Your task to perform on an android device: add a contact in the contacts app Image 0: 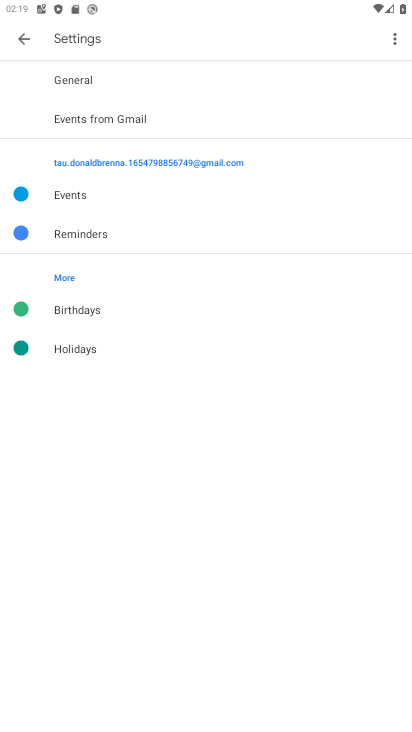
Step 0: press home button
Your task to perform on an android device: add a contact in the contacts app Image 1: 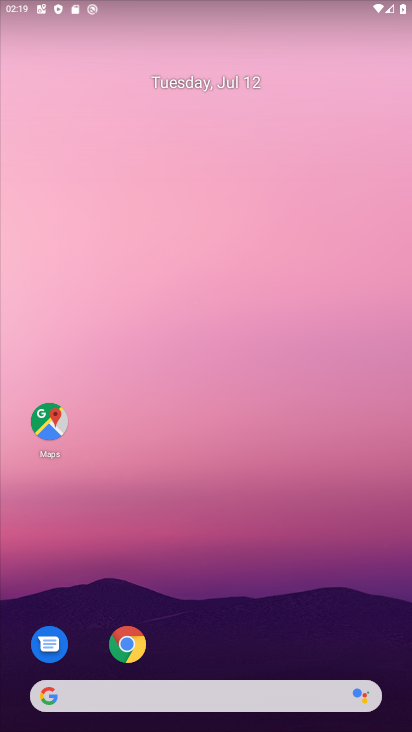
Step 1: drag from (228, 668) to (217, 203)
Your task to perform on an android device: add a contact in the contacts app Image 2: 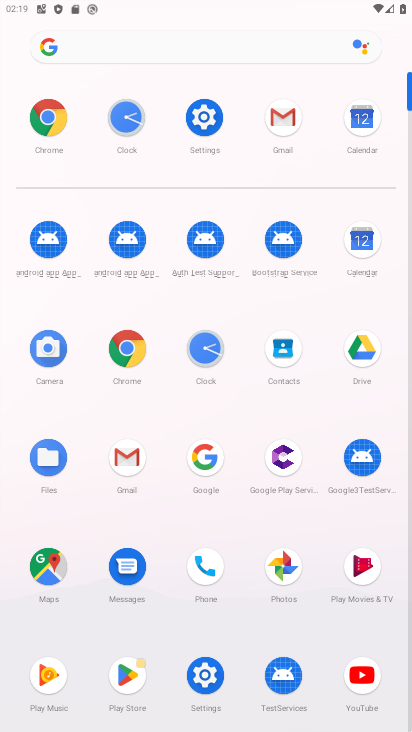
Step 2: click (212, 572)
Your task to perform on an android device: add a contact in the contacts app Image 3: 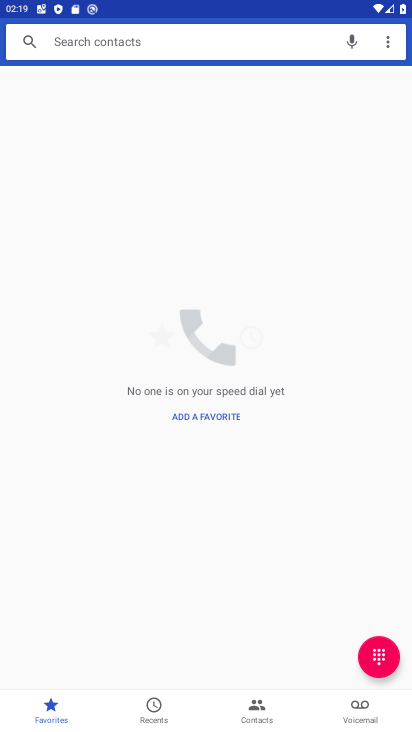
Step 3: click (269, 715)
Your task to perform on an android device: add a contact in the contacts app Image 4: 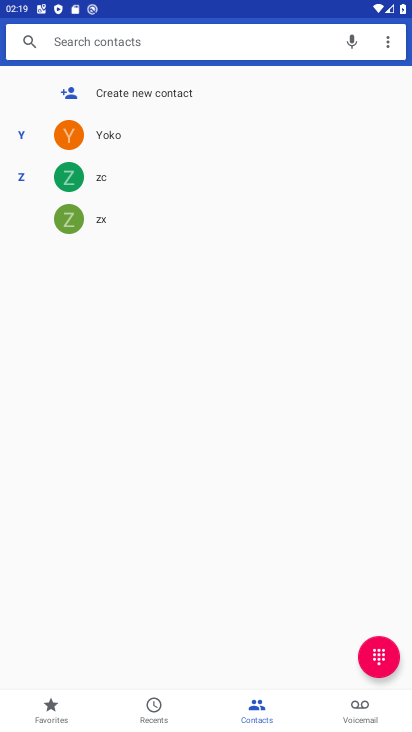
Step 4: click (146, 100)
Your task to perform on an android device: add a contact in the contacts app Image 5: 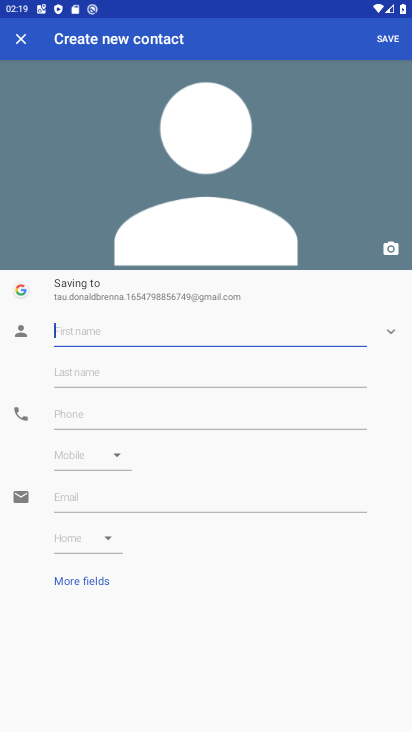
Step 5: type "d"
Your task to perform on an android device: add a contact in the contacts app Image 6: 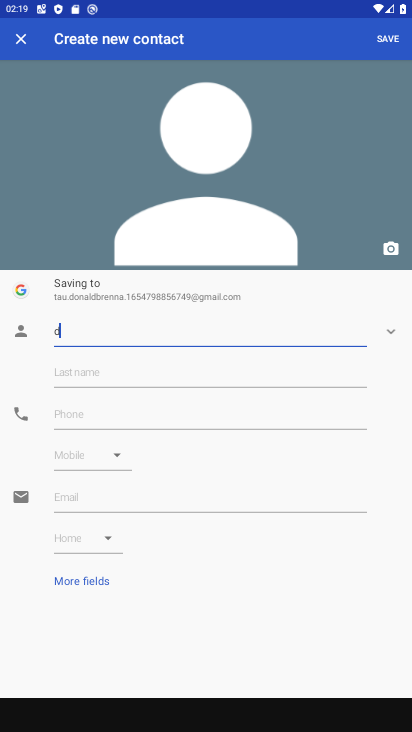
Step 6: click (251, 414)
Your task to perform on an android device: add a contact in the contacts app Image 7: 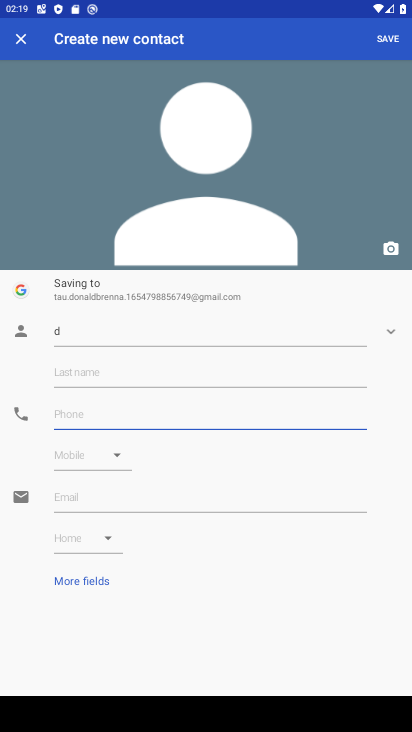
Step 7: type "44"
Your task to perform on an android device: add a contact in the contacts app Image 8: 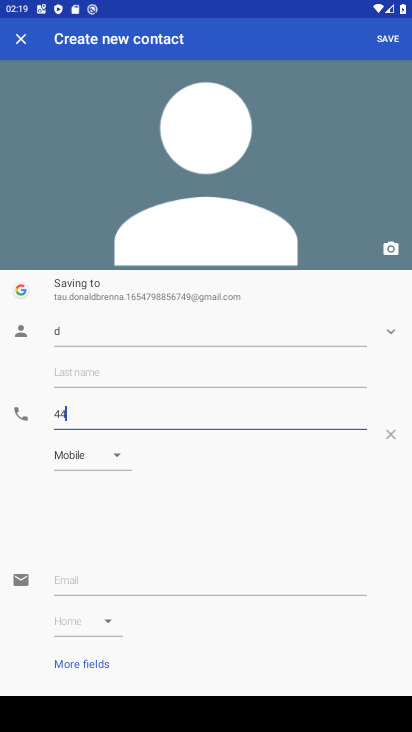
Step 8: type ""
Your task to perform on an android device: add a contact in the contacts app Image 9: 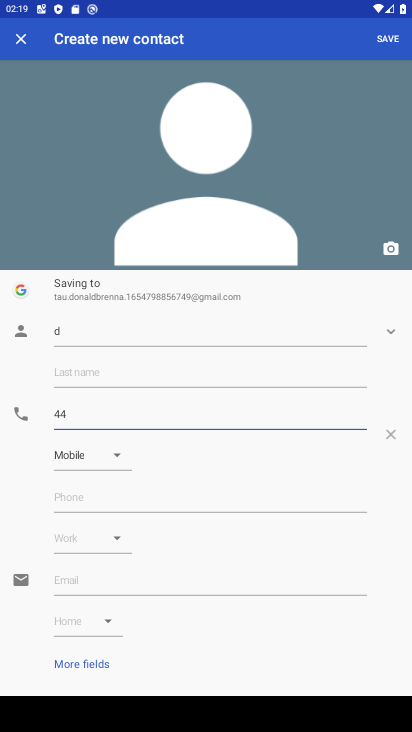
Step 9: click (387, 45)
Your task to perform on an android device: add a contact in the contacts app Image 10: 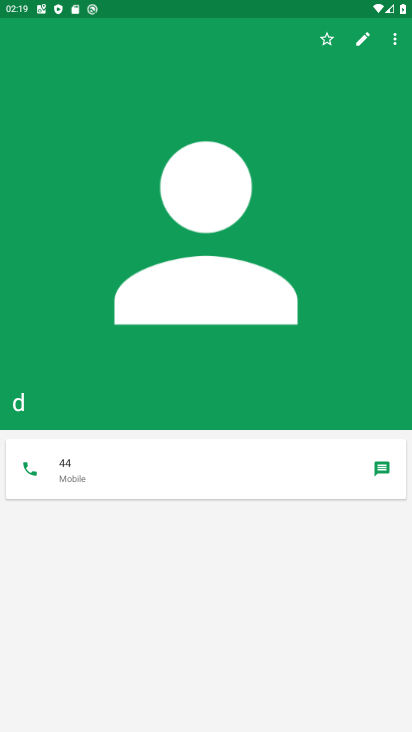
Step 10: task complete